Your task to perform on an android device: Open Youtube and go to "Your channel" Image 0: 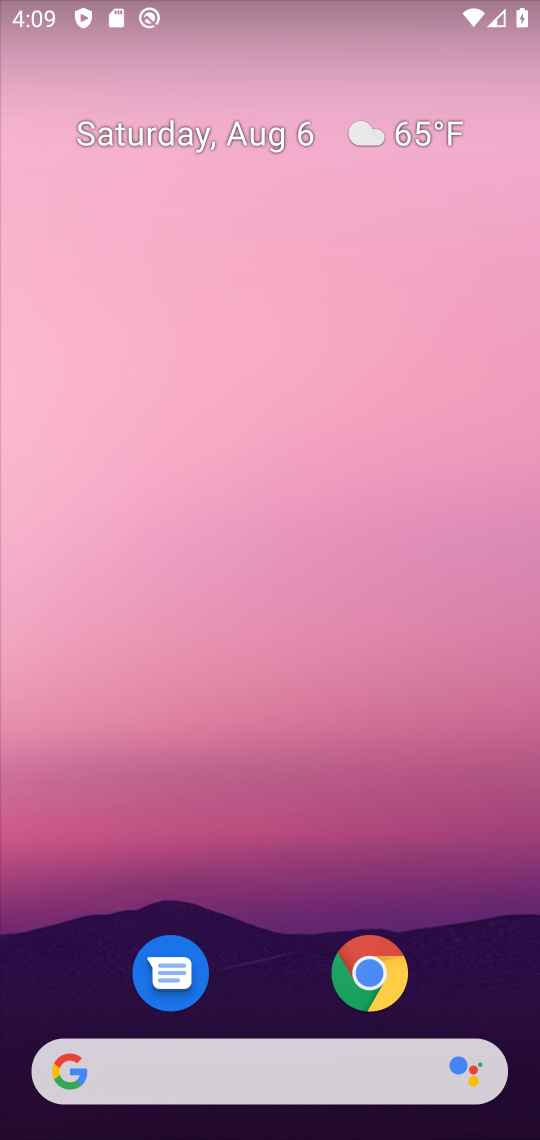
Step 0: drag from (458, 839) to (374, 157)
Your task to perform on an android device: Open Youtube and go to "Your channel" Image 1: 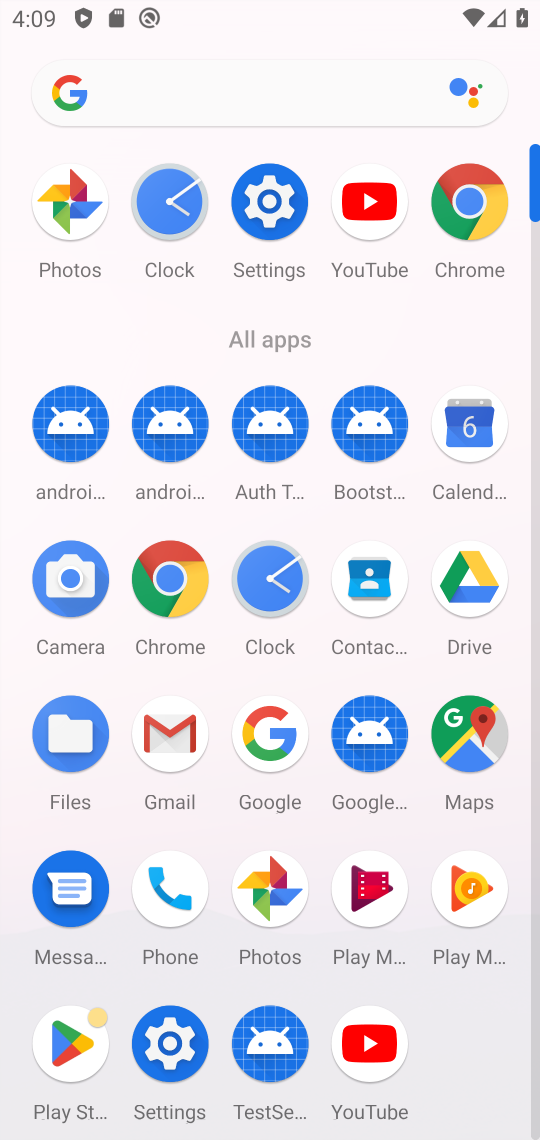
Step 1: click (358, 1028)
Your task to perform on an android device: Open Youtube and go to "Your channel" Image 2: 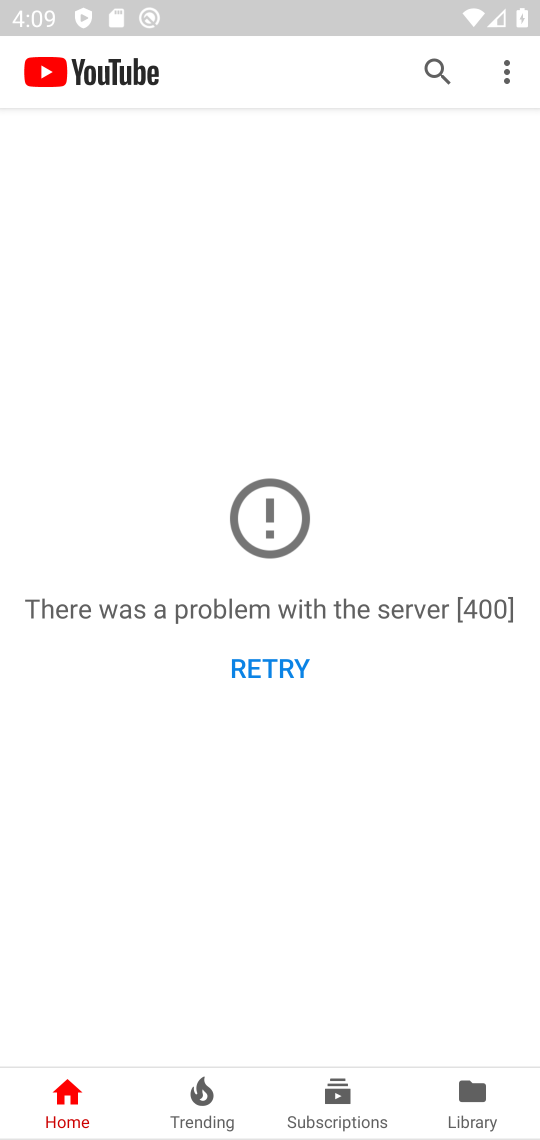
Step 2: click (492, 1102)
Your task to perform on an android device: Open Youtube and go to "Your channel" Image 3: 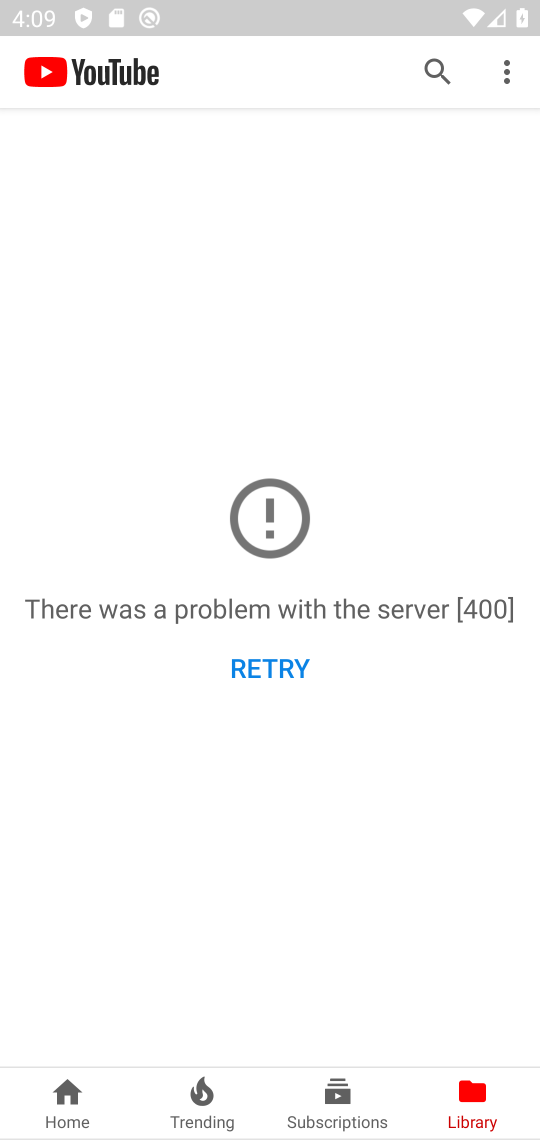
Step 3: task complete